Your task to perform on an android device: empty trash in google photos Image 0: 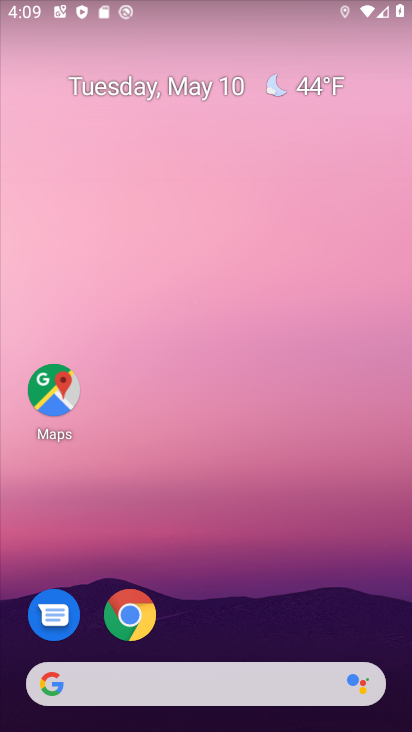
Step 0: drag from (201, 731) to (196, 247)
Your task to perform on an android device: empty trash in google photos Image 1: 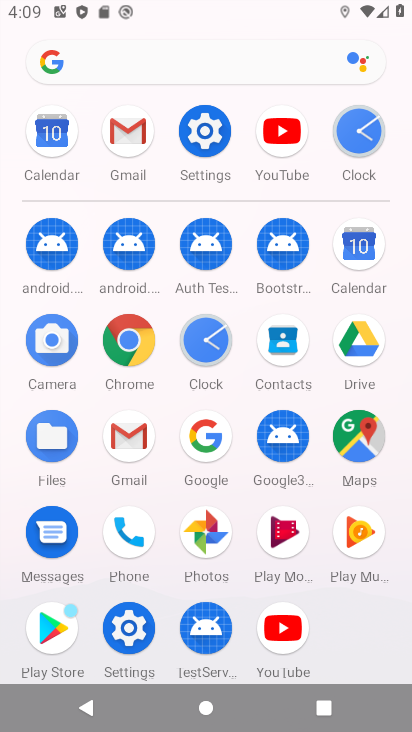
Step 1: click (211, 528)
Your task to perform on an android device: empty trash in google photos Image 2: 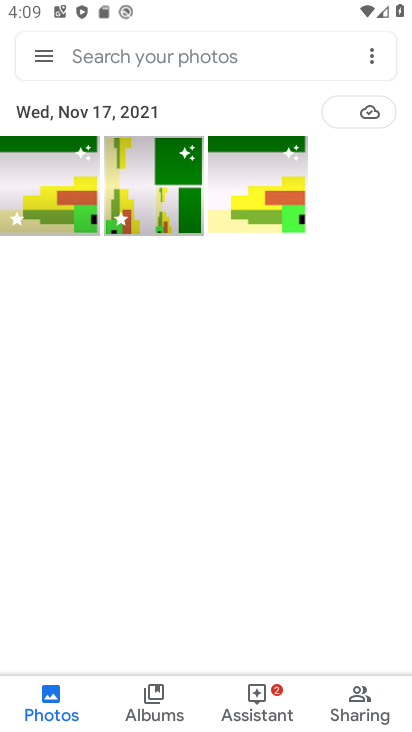
Step 2: click (38, 53)
Your task to perform on an android device: empty trash in google photos Image 3: 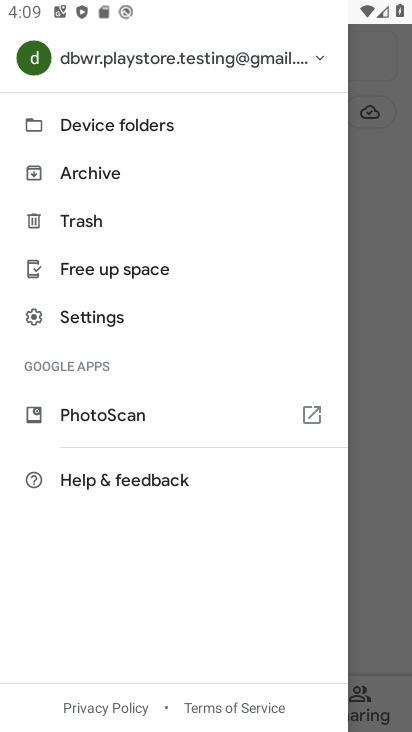
Step 3: click (83, 212)
Your task to perform on an android device: empty trash in google photos Image 4: 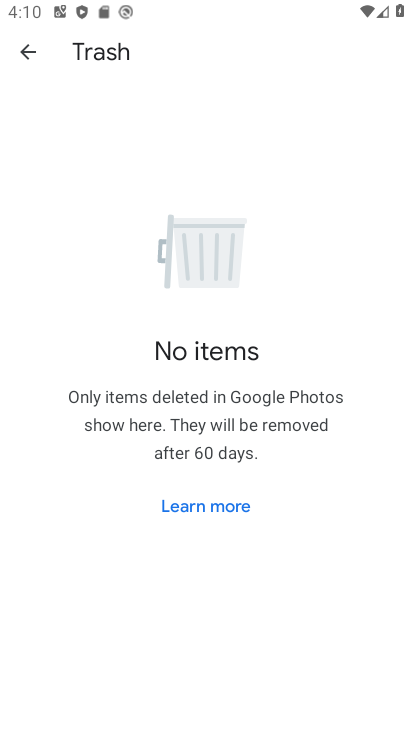
Step 4: task complete